Your task to perform on an android device: read, delete, or share a saved page in the chrome app Image 0: 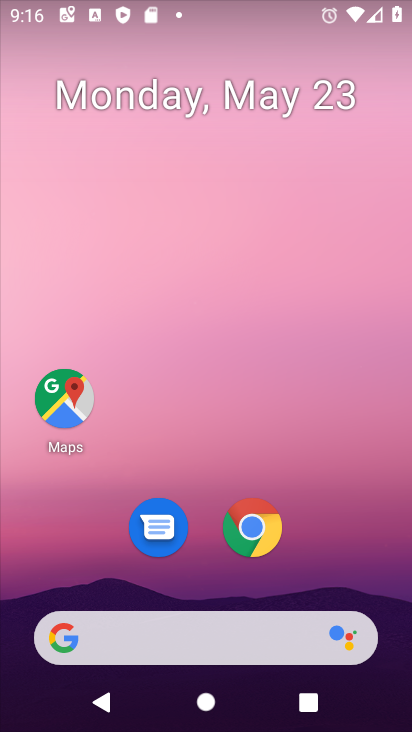
Step 0: drag from (353, 557) to (255, 49)
Your task to perform on an android device: read, delete, or share a saved page in the chrome app Image 1: 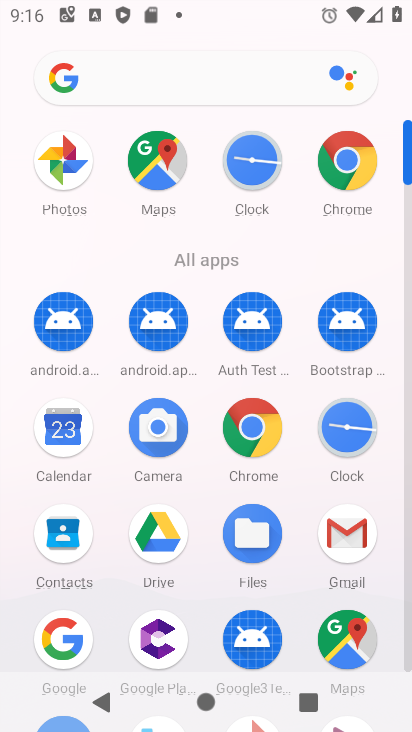
Step 1: drag from (23, 574) to (40, 174)
Your task to perform on an android device: read, delete, or share a saved page in the chrome app Image 2: 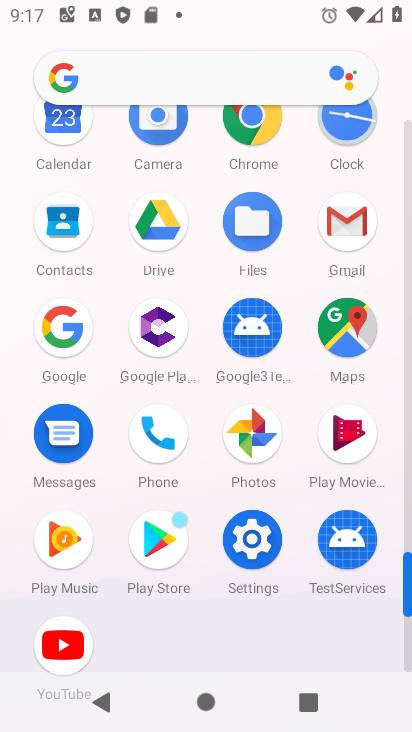
Step 2: drag from (10, 568) to (49, 179)
Your task to perform on an android device: read, delete, or share a saved page in the chrome app Image 3: 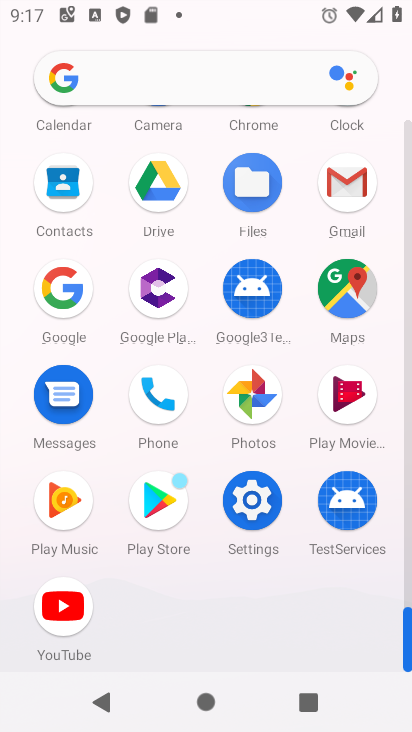
Step 3: drag from (2, 195) to (13, 575)
Your task to perform on an android device: read, delete, or share a saved page in the chrome app Image 4: 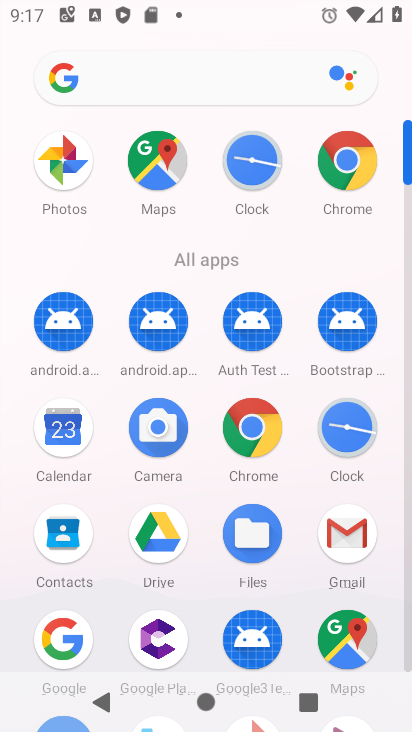
Step 4: click (255, 423)
Your task to perform on an android device: read, delete, or share a saved page in the chrome app Image 5: 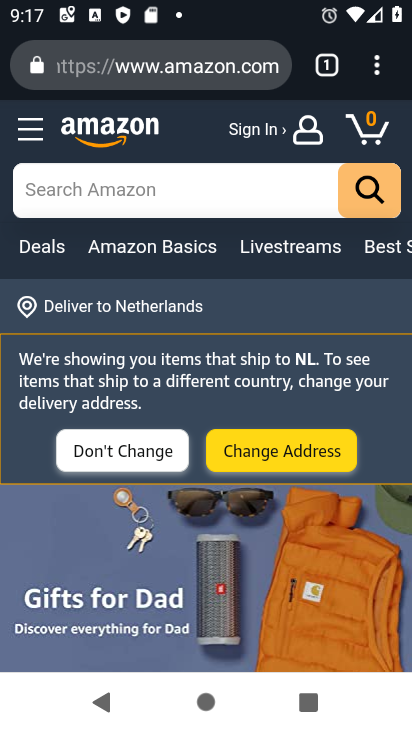
Step 5: task complete